Your task to perform on an android device: uninstall "Paramount+ | Peak Streaming" Image 0: 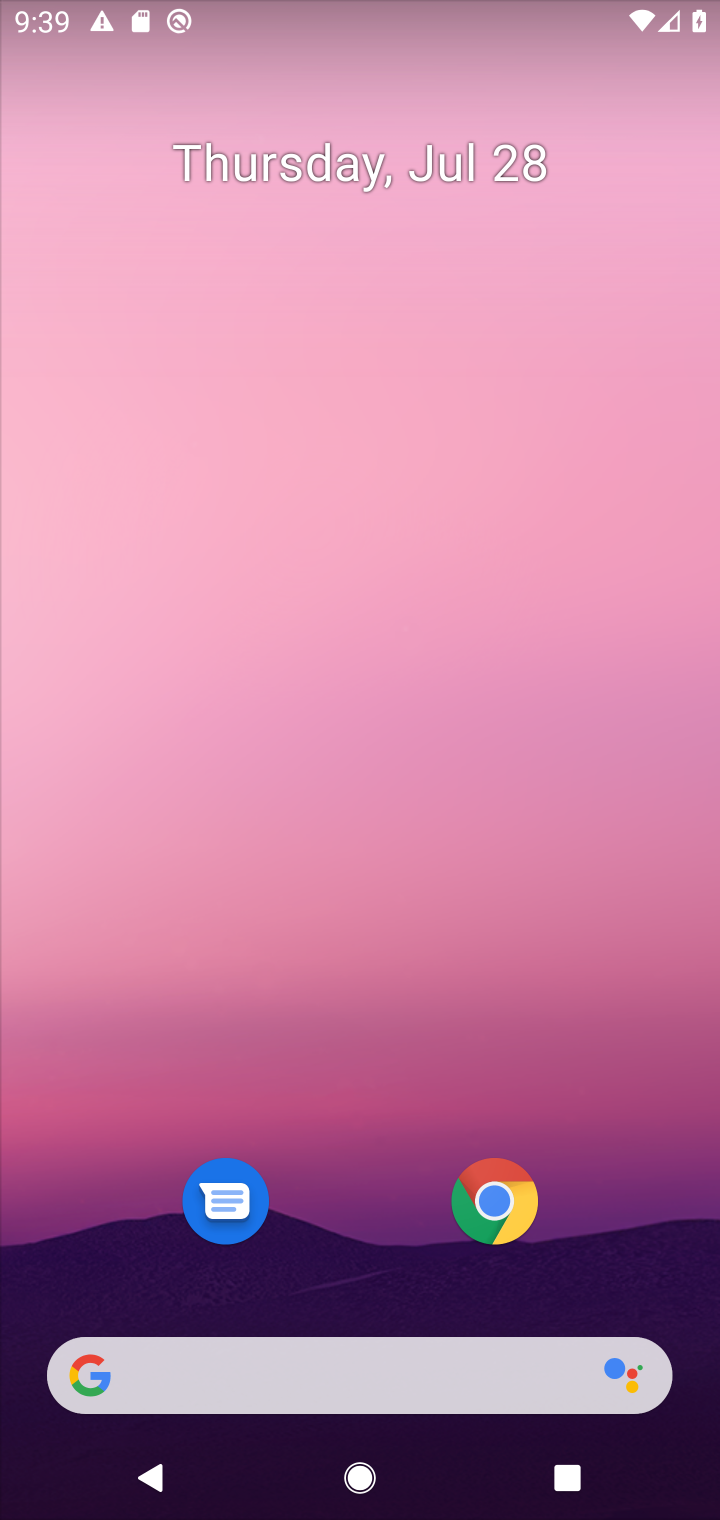
Step 0: drag from (342, 1250) to (372, 0)
Your task to perform on an android device: uninstall "Paramount+ | Peak Streaming" Image 1: 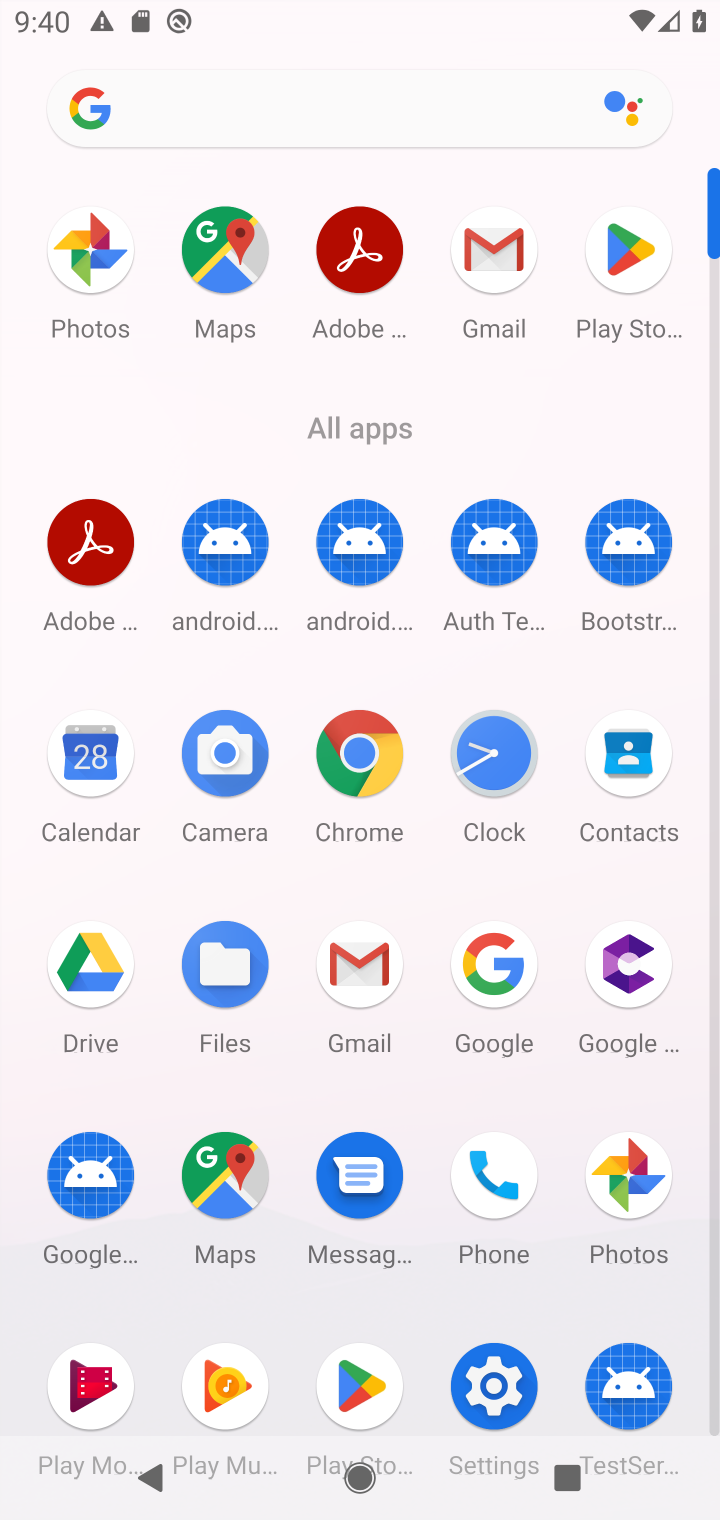
Step 1: click (346, 1375)
Your task to perform on an android device: uninstall "Paramount+ | Peak Streaming" Image 2: 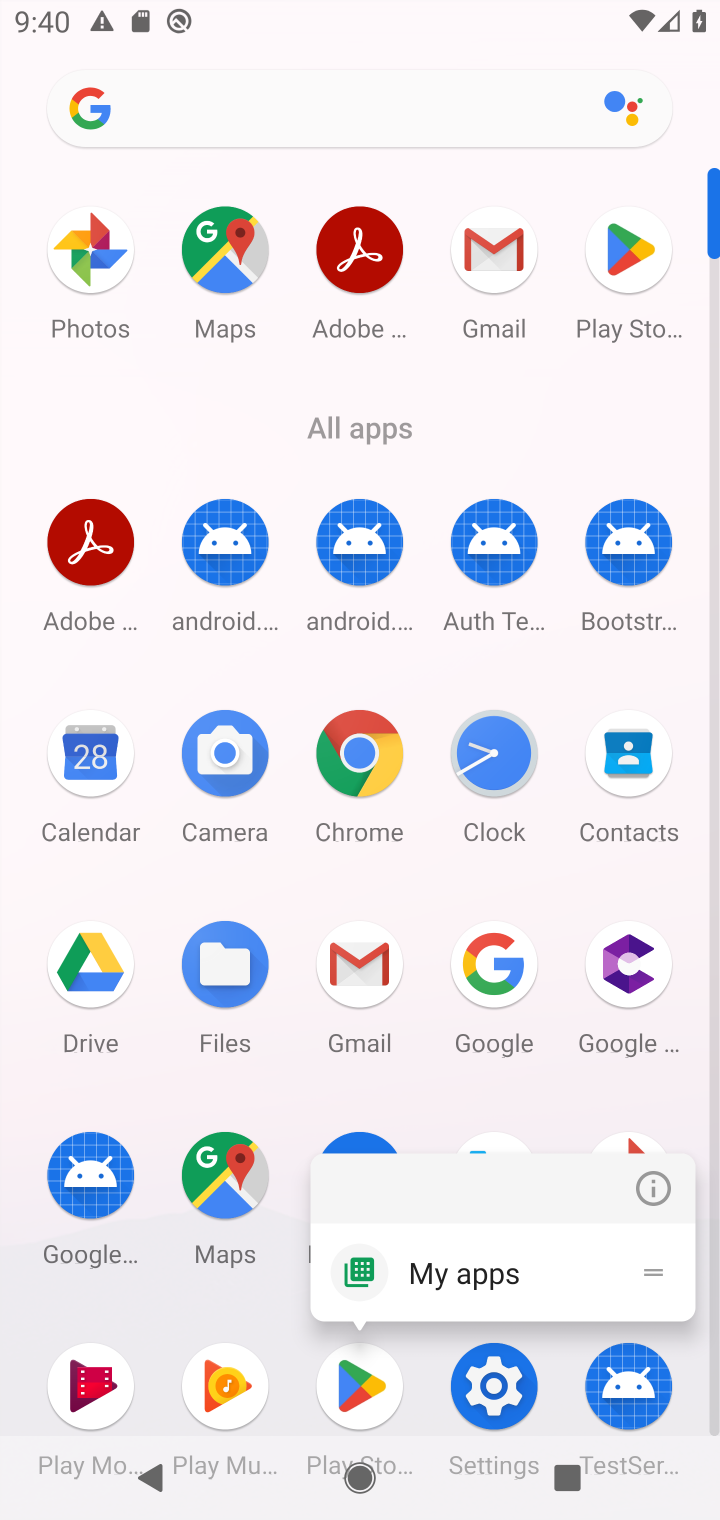
Step 2: click (351, 1388)
Your task to perform on an android device: uninstall "Paramount+ | Peak Streaming" Image 3: 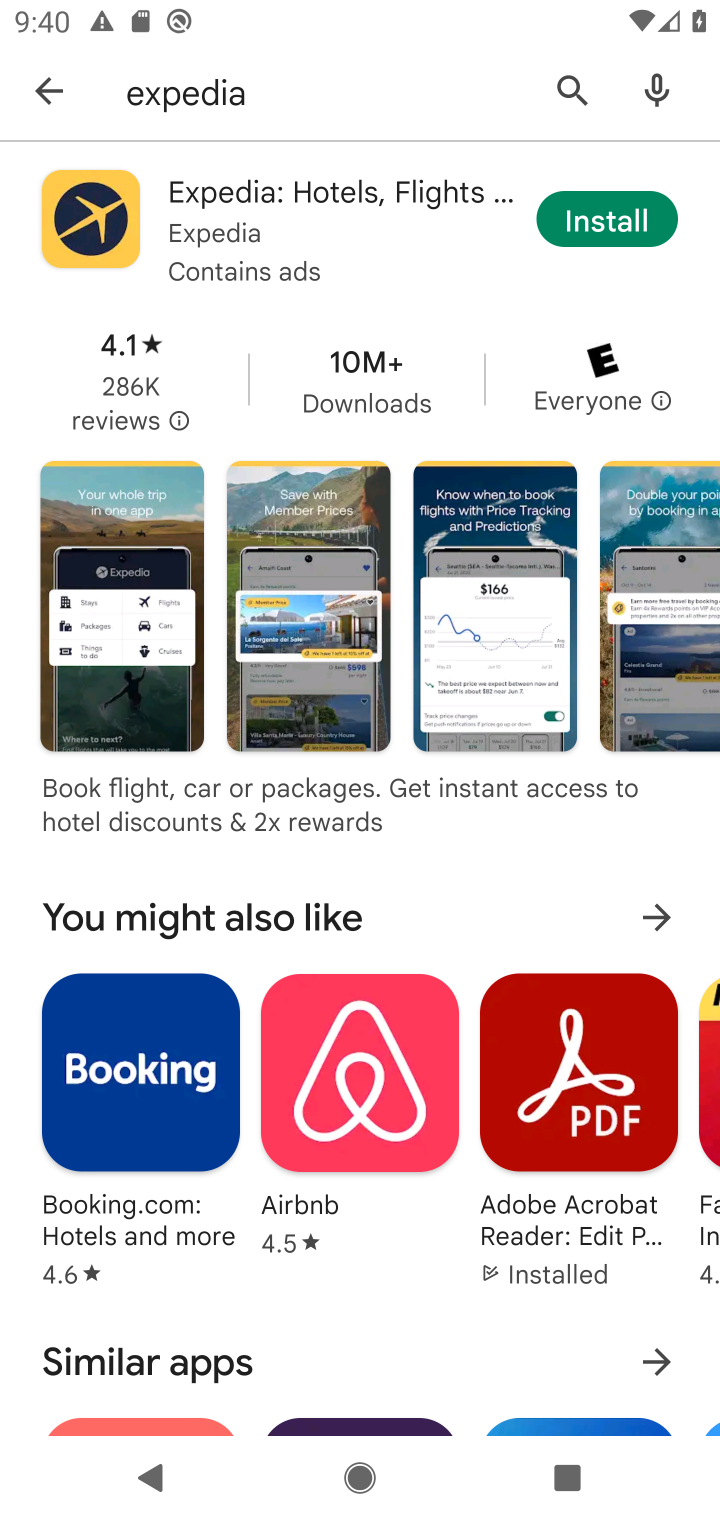
Step 3: click (178, 98)
Your task to perform on an android device: uninstall "Paramount+ | Peak Streaming" Image 4: 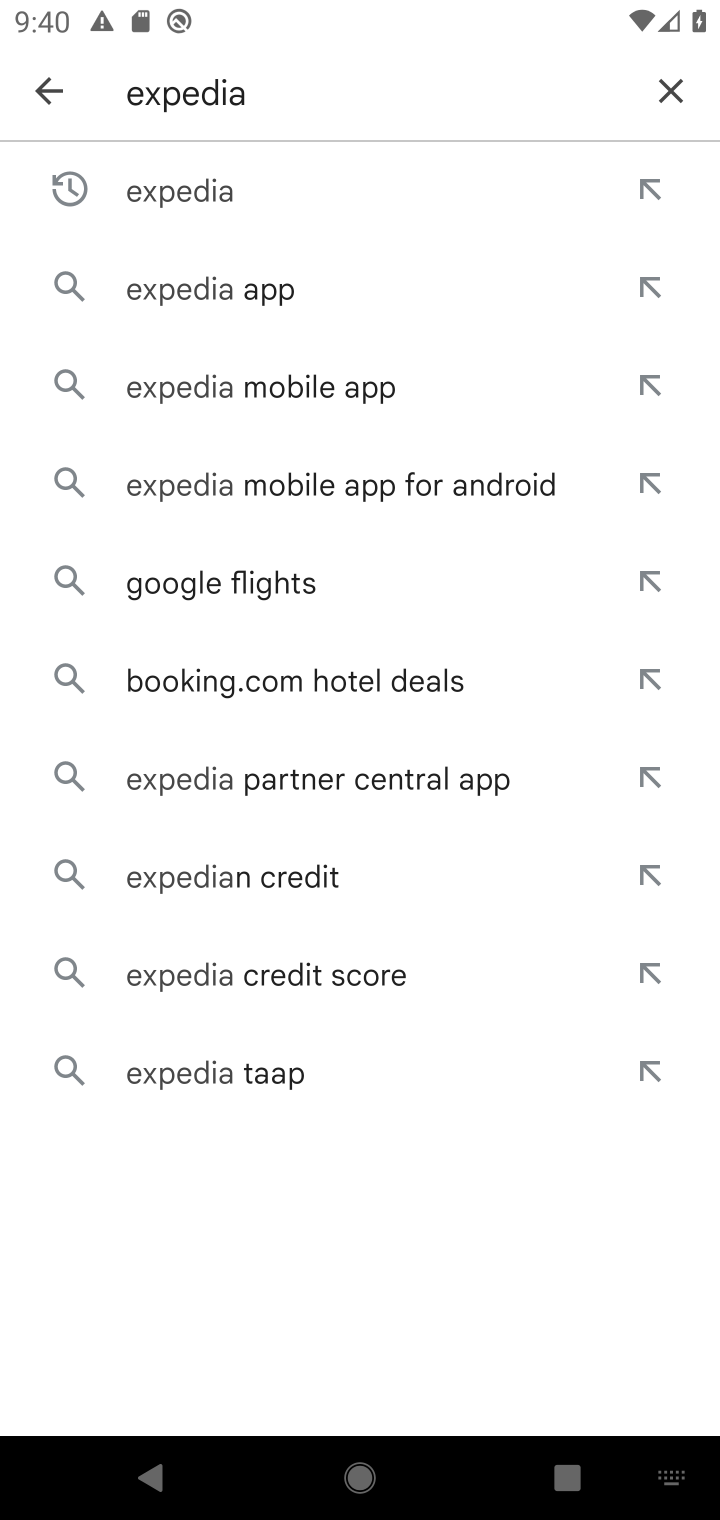
Step 4: click (674, 81)
Your task to perform on an android device: uninstall "Paramount+ | Peak Streaming" Image 5: 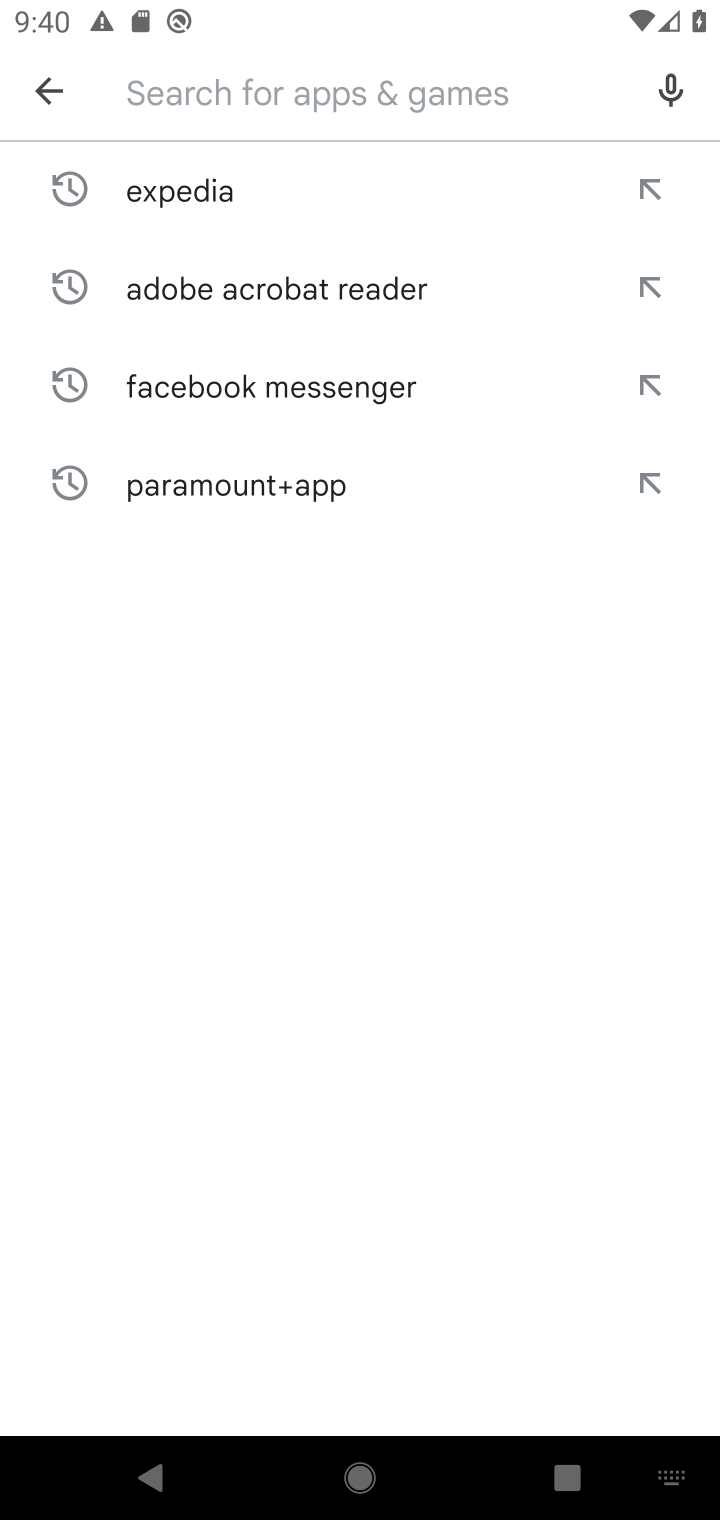
Step 5: type "Paramount+"
Your task to perform on an android device: uninstall "Paramount+ | Peak Streaming" Image 6: 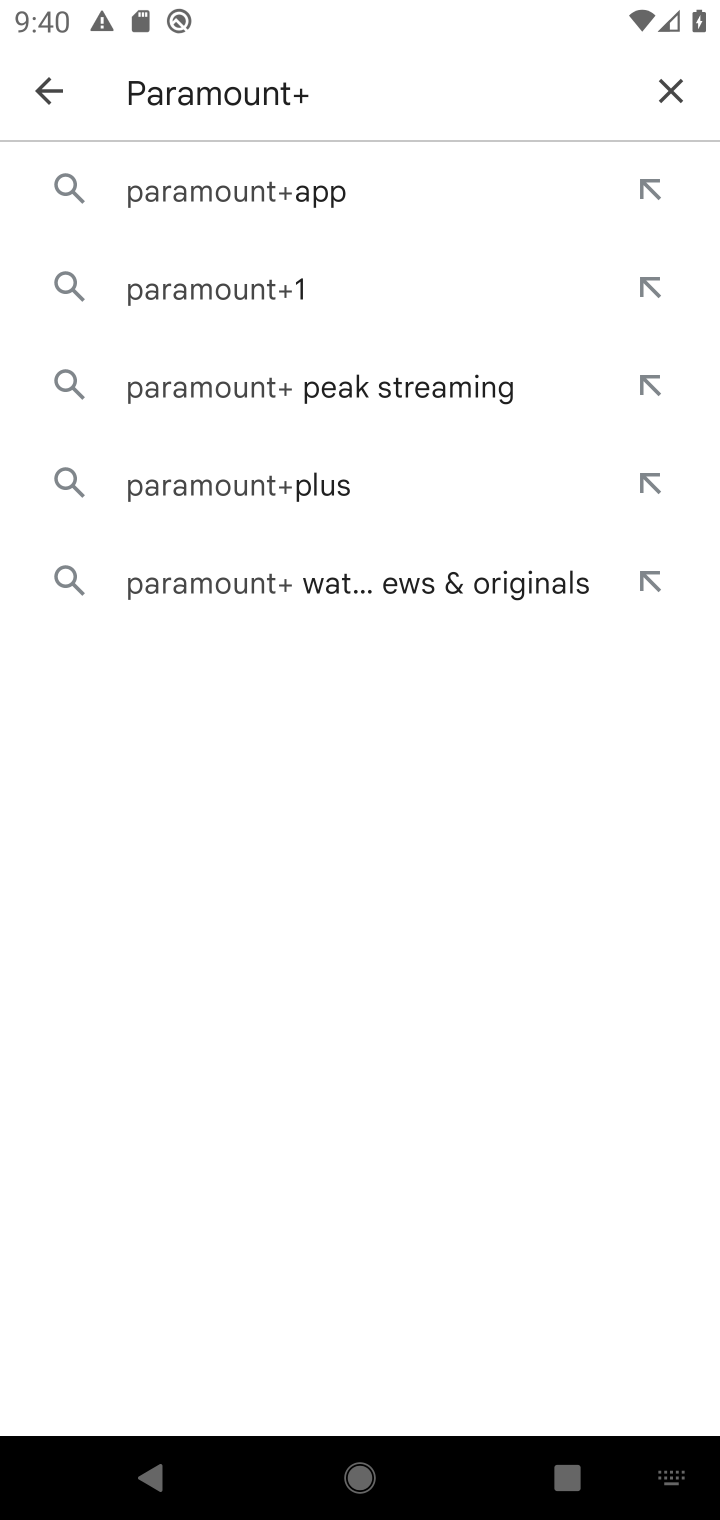
Step 6: click (313, 227)
Your task to perform on an android device: uninstall "Paramount+ | Peak Streaming" Image 7: 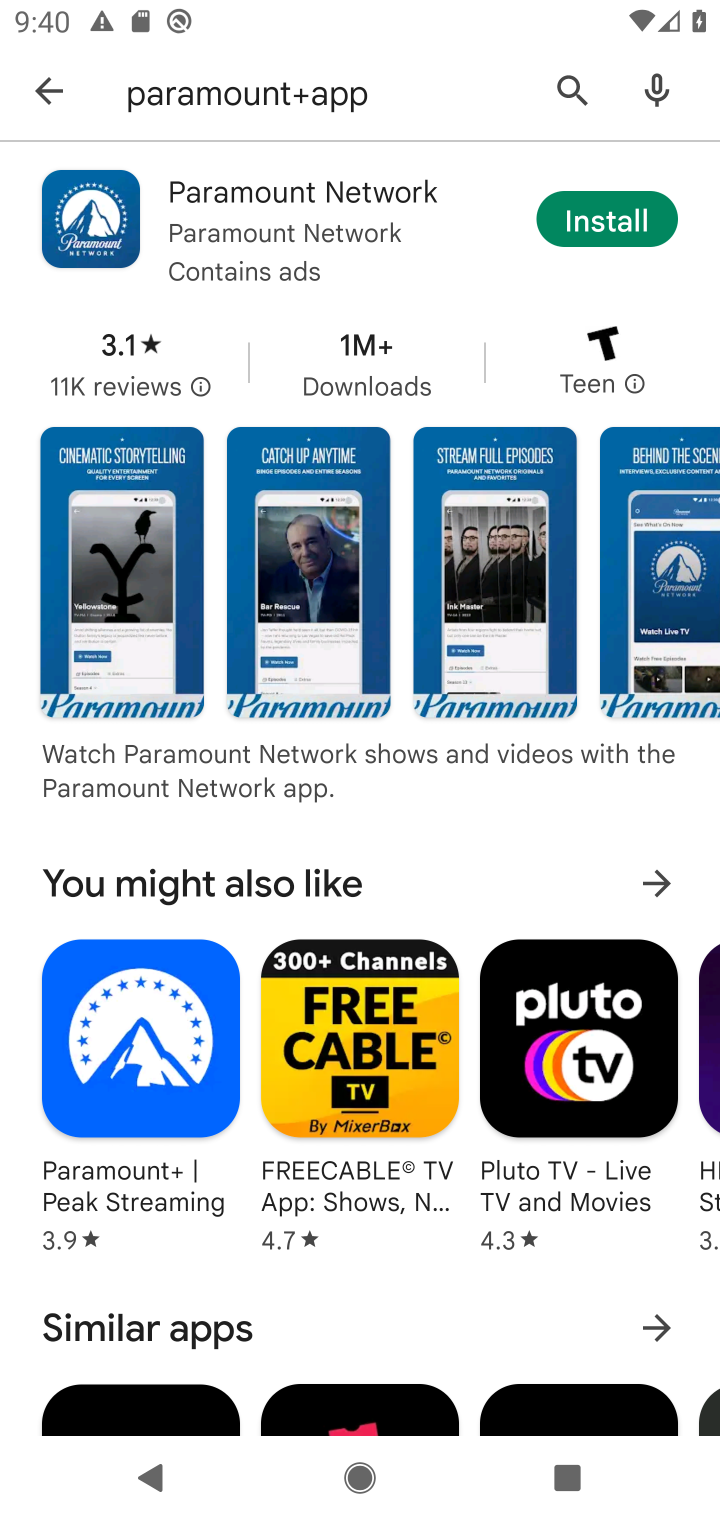
Step 7: task complete